Your task to perform on an android device: turn off picture-in-picture Image 0: 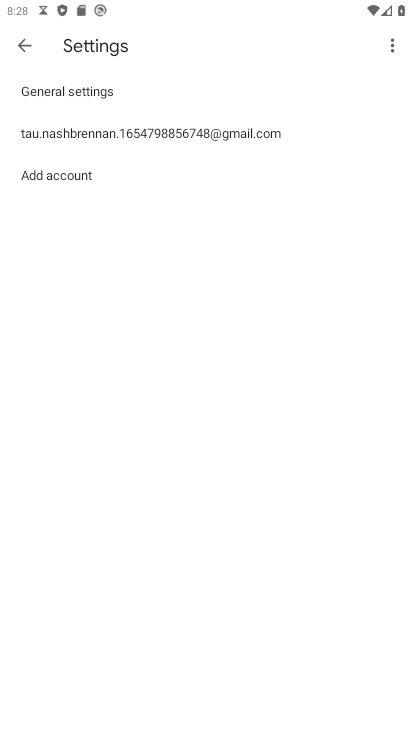
Step 0: press home button
Your task to perform on an android device: turn off picture-in-picture Image 1: 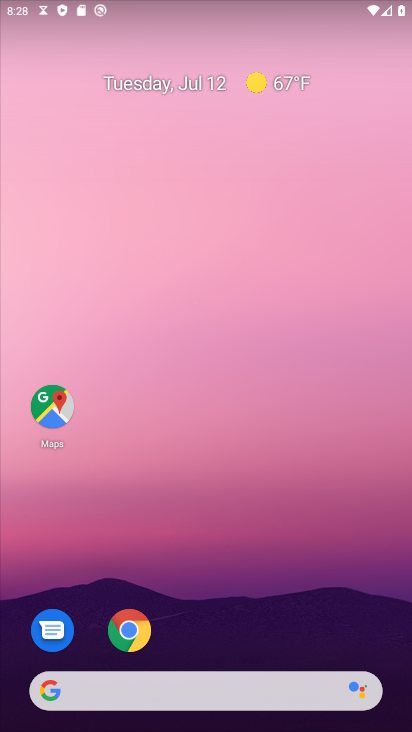
Step 1: click (127, 622)
Your task to perform on an android device: turn off picture-in-picture Image 2: 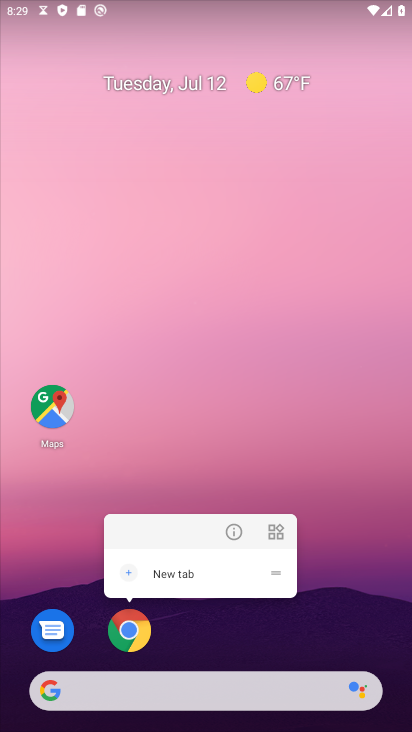
Step 2: click (226, 533)
Your task to perform on an android device: turn off picture-in-picture Image 3: 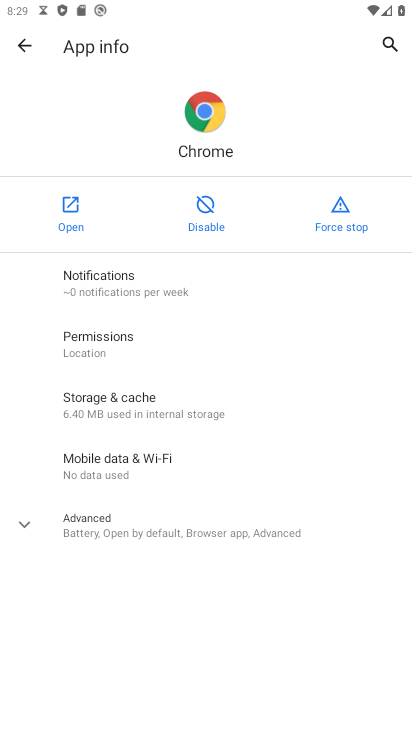
Step 3: click (249, 530)
Your task to perform on an android device: turn off picture-in-picture Image 4: 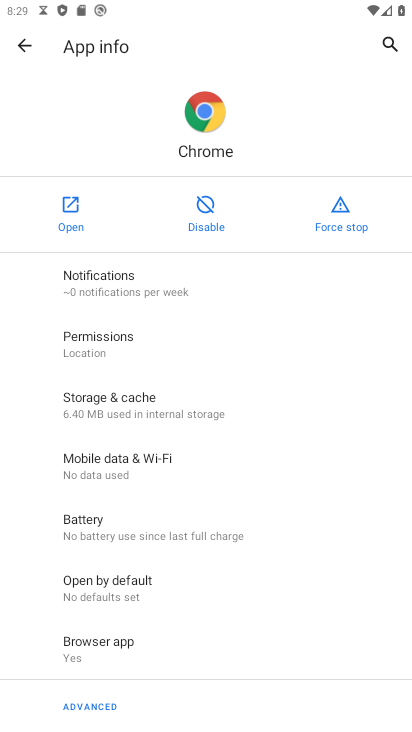
Step 4: drag from (247, 631) to (212, 189)
Your task to perform on an android device: turn off picture-in-picture Image 5: 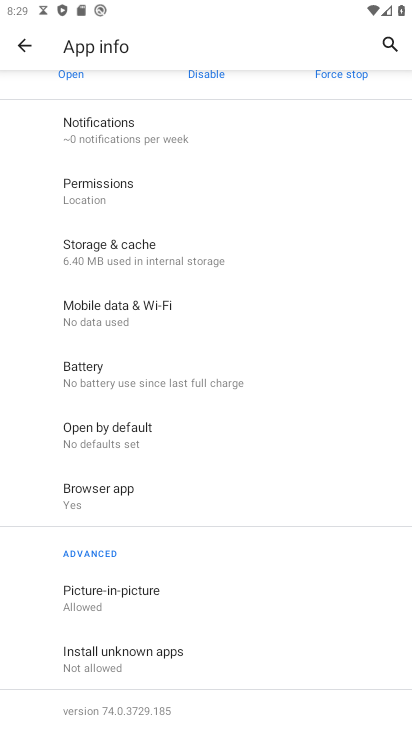
Step 5: click (261, 602)
Your task to perform on an android device: turn off picture-in-picture Image 6: 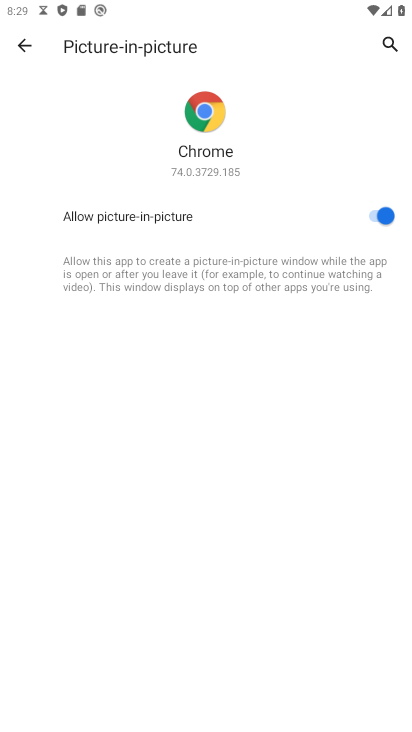
Step 6: click (381, 216)
Your task to perform on an android device: turn off picture-in-picture Image 7: 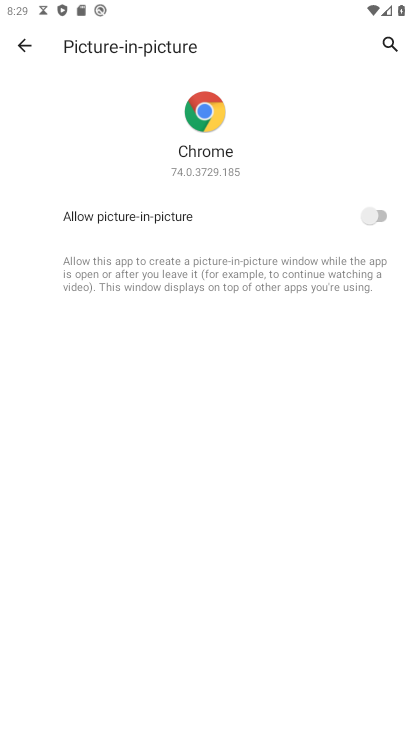
Step 7: task complete